Your task to perform on an android device: turn off javascript in the chrome app Image 0: 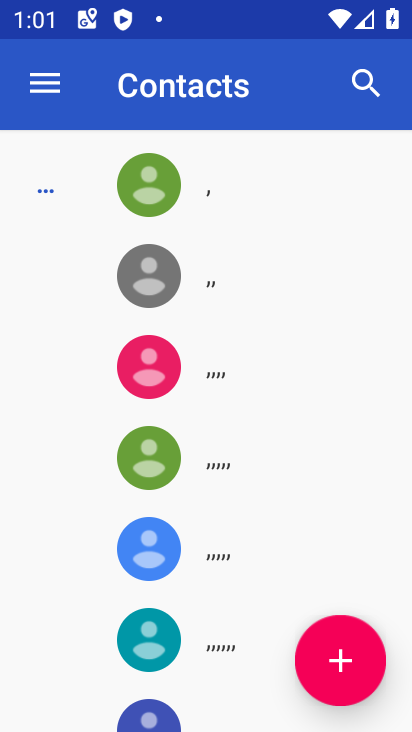
Step 0: press home button
Your task to perform on an android device: turn off javascript in the chrome app Image 1: 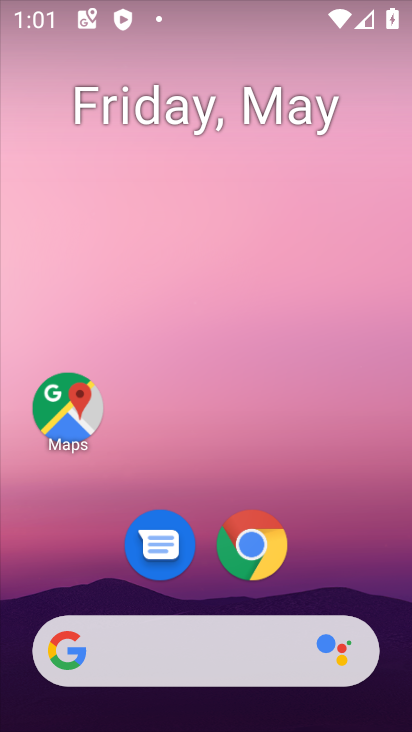
Step 1: click (255, 555)
Your task to perform on an android device: turn off javascript in the chrome app Image 2: 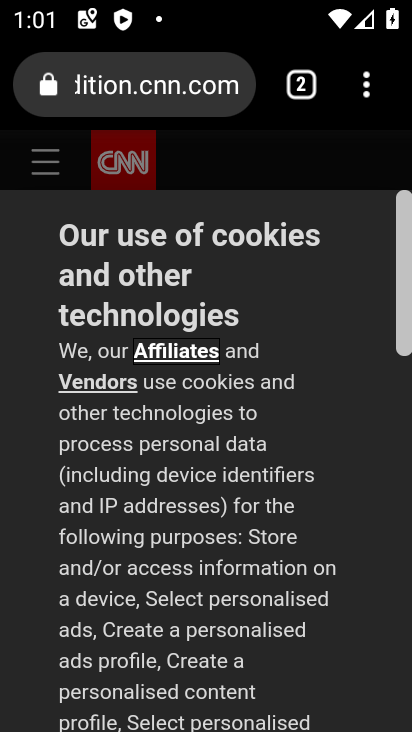
Step 2: click (370, 87)
Your task to perform on an android device: turn off javascript in the chrome app Image 3: 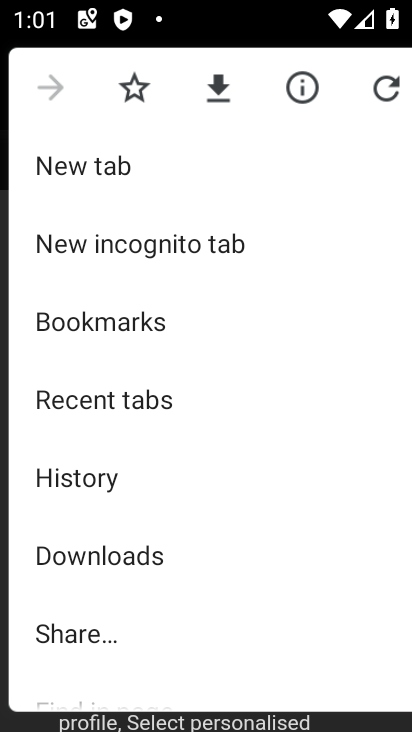
Step 3: drag from (206, 619) to (231, 278)
Your task to perform on an android device: turn off javascript in the chrome app Image 4: 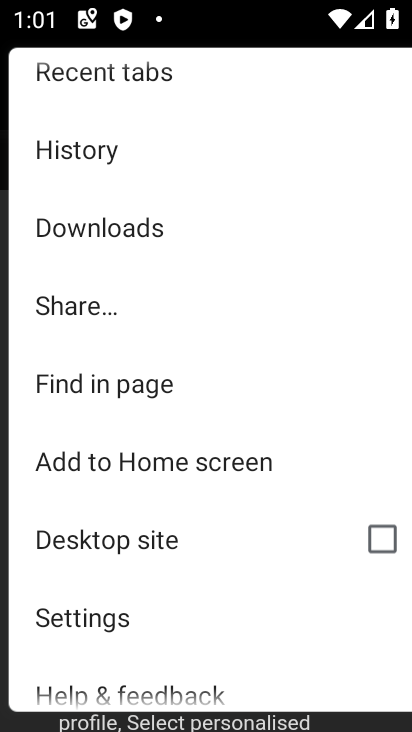
Step 4: click (152, 622)
Your task to perform on an android device: turn off javascript in the chrome app Image 5: 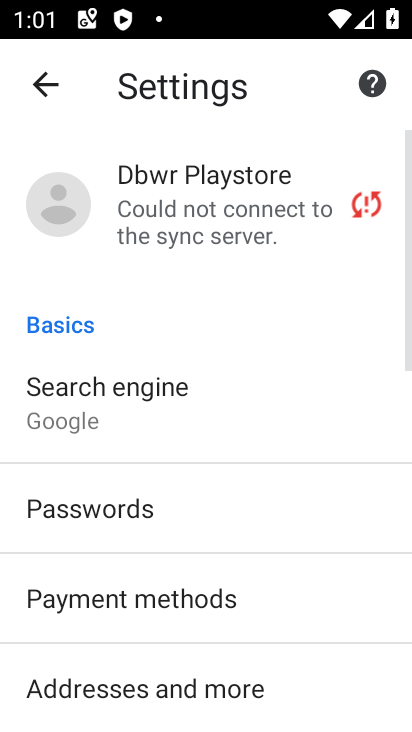
Step 5: drag from (313, 595) to (257, 230)
Your task to perform on an android device: turn off javascript in the chrome app Image 6: 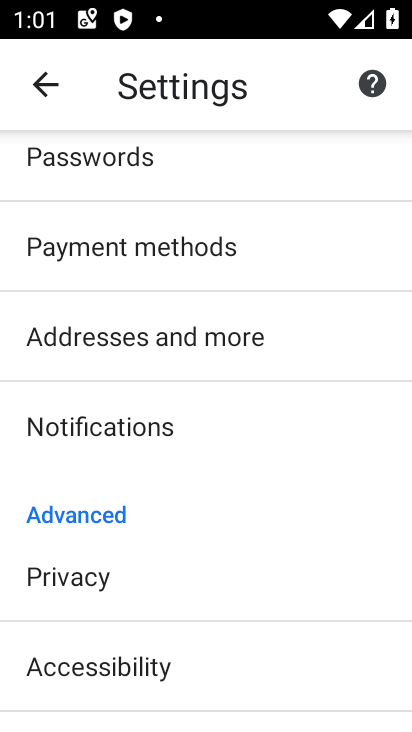
Step 6: drag from (214, 621) to (233, 308)
Your task to perform on an android device: turn off javascript in the chrome app Image 7: 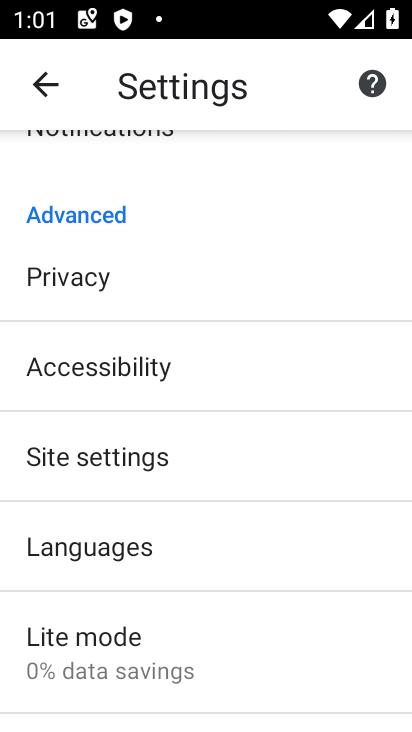
Step 7: click (142, 452)
Your task to perform on an android device: turn off javascript in the chrome app Image 8: 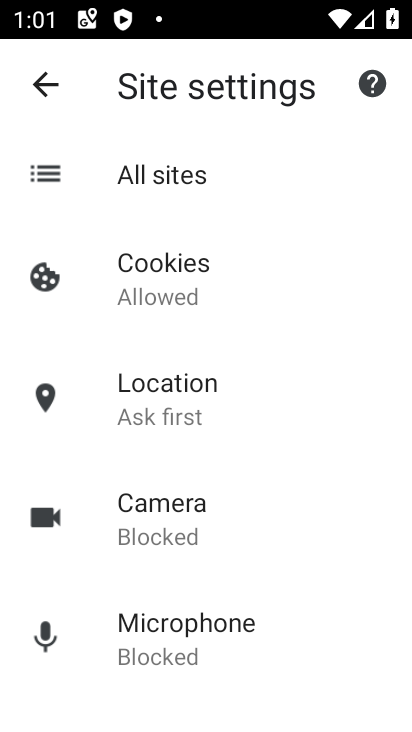
Step 8: drag from (324, 614) to (248, 223)
Your task to perform on an android device: turn off javascript in the chrome app Image 9: 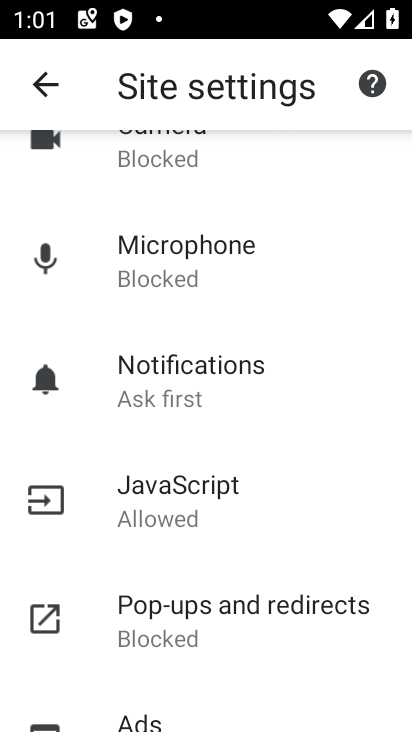
Step 9: click (202, 501)
Your task to perform on an android device: turn off javascript in the chrome app Image 10: 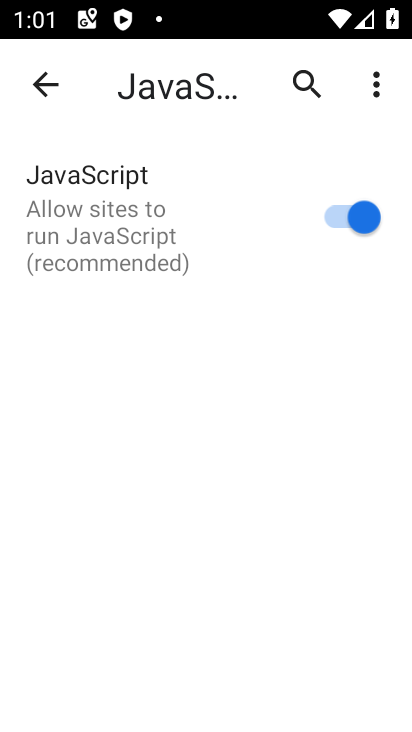
Step 10: click (337, 213)
Your task to perform on an android device: turn off javascript in the chrome app Image 11: 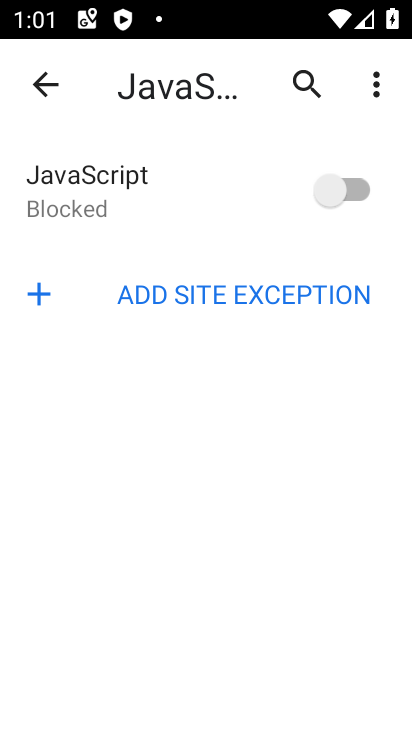
Step 11: task complete